Your task to perform on an android device: move a message to another label in the gmail app Image 0: 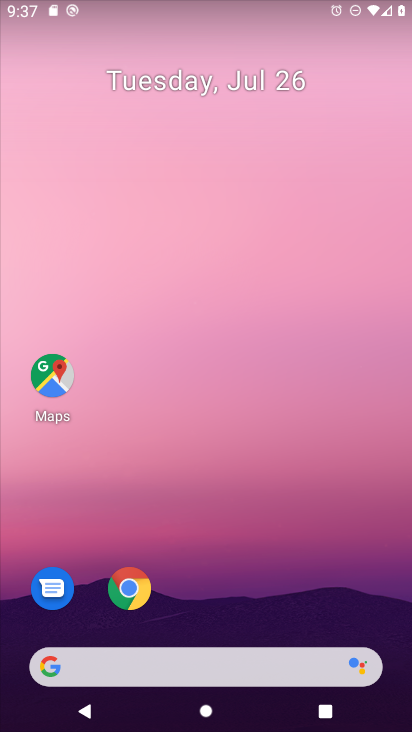
Step 0: drag from (244, 651) to (303, 90)
Your task to perform on an android device: move a message to another label in the gmail app Image 1: 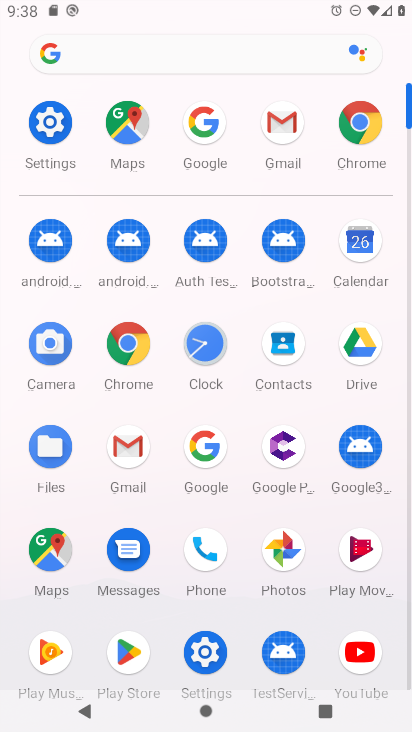
Step 1: click (146, 472)
Your task to perform on an android device: move a message to another label in the gmail app Image 2: 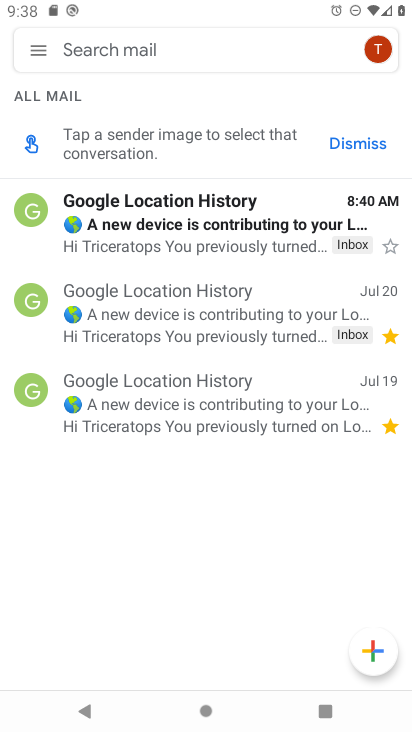
Step 2: click (181, 227)
Your task to perform on an android device: move a message to another label in the gmail app Image 3: 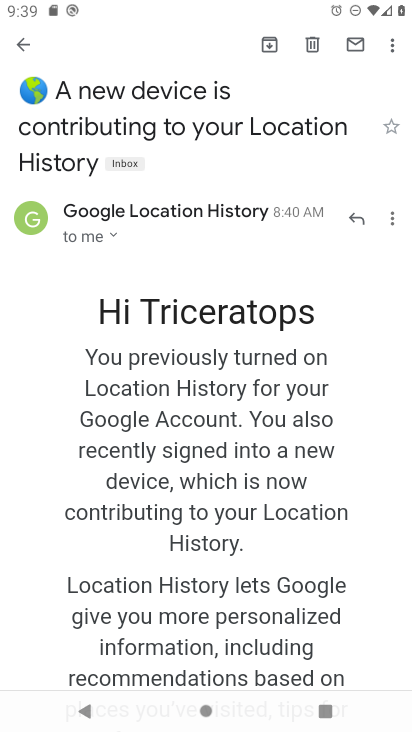
Step 3: click (394, 49)
Your task to perform on an android device: move a message to another label in the gmail app Image 4: 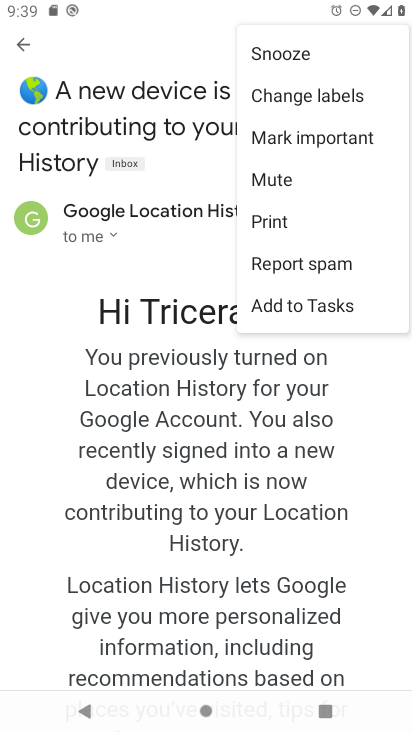
Step 4: click (300, 106)
Your task to perform on an android device: move a message to another label in the gmail app Image 5: 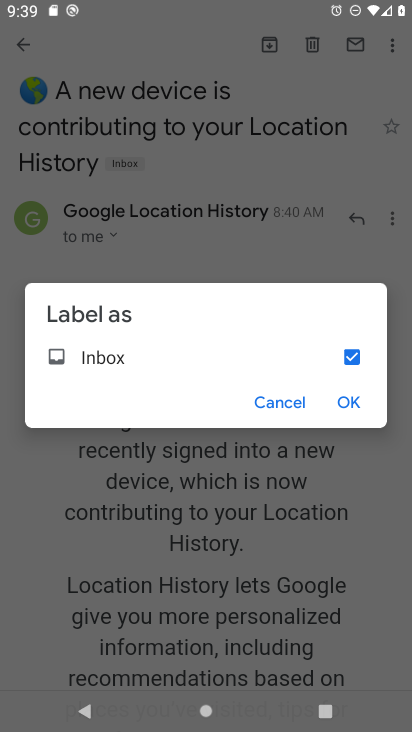
Step 5: click (353, 397)
Your task to perform on an android device: move a message to another label in the gmail app Image 6: 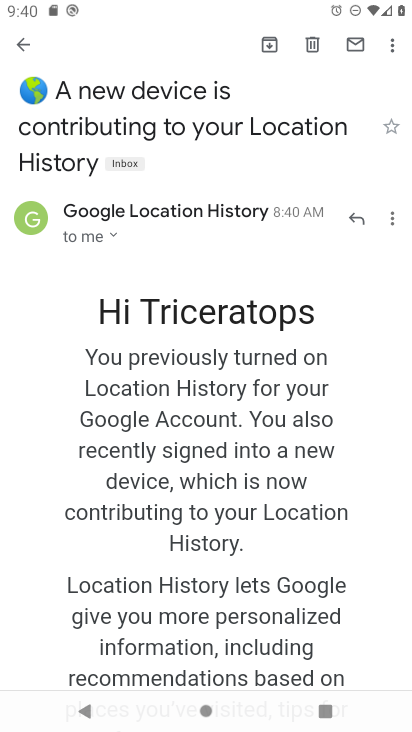
Step 6: task complete